Your task to perform on an android device: Go to Maps Image 0: 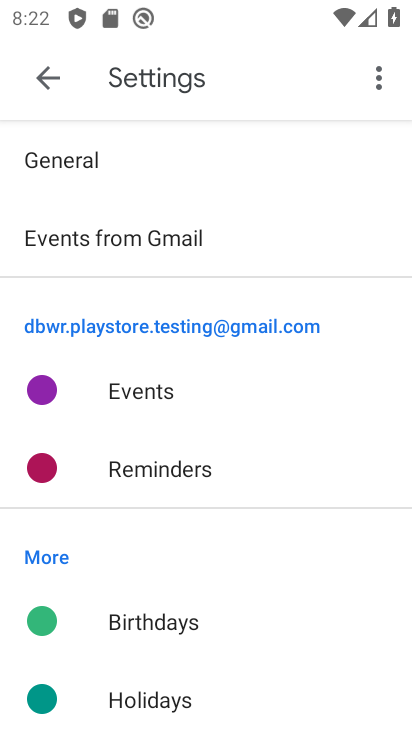
Step 0: press home button
Your task to perform on an android device: Go to Maps Image 1: 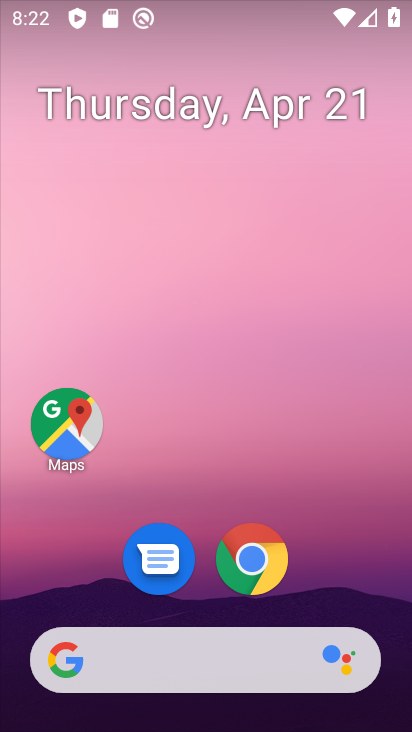
Step 1: click (77, 422)
Your task to perform on an android device: Go to Maps Image 2: 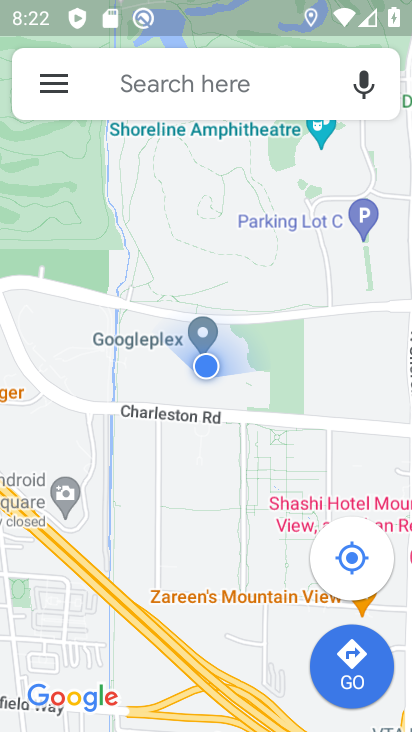
Step 2: task complete